Your task to perform on an android device: manage bookmarks in the chrome app Image 0: 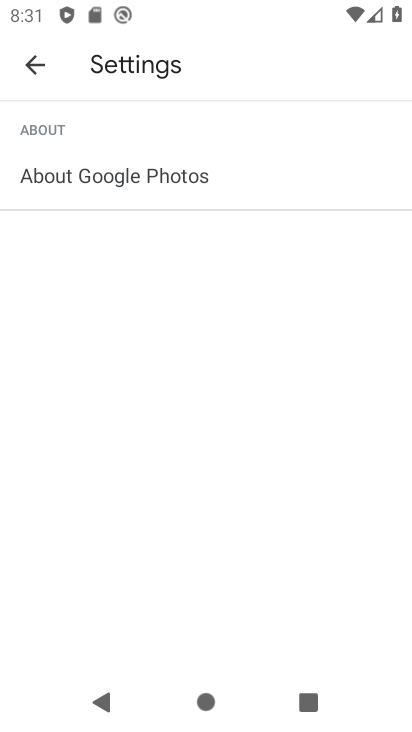
Step 0: press home button
Your task to perform on an android device: manage bookmarks in the chrome app Image 1: 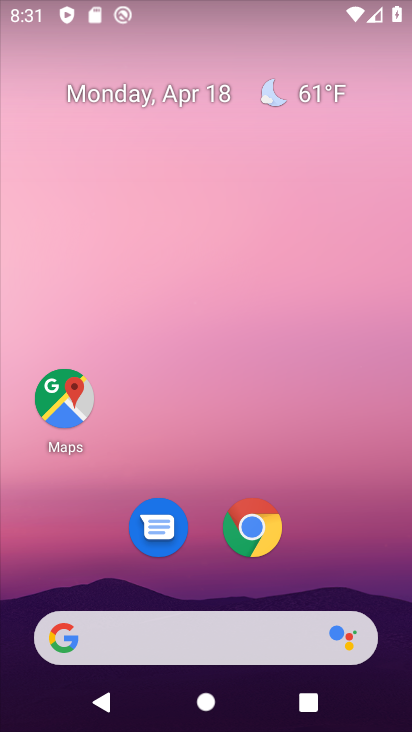
Step 1: click (258, 537)
Your task to perform on an android device: manage bookmarks in the chrome app Image 2: 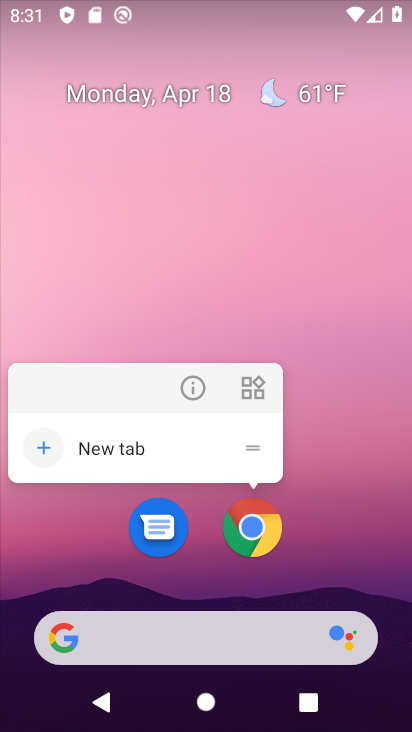
Step 2: click (255, 526)
Your task to perform on an android device: manage bookmarks in the chrome app Image 3: 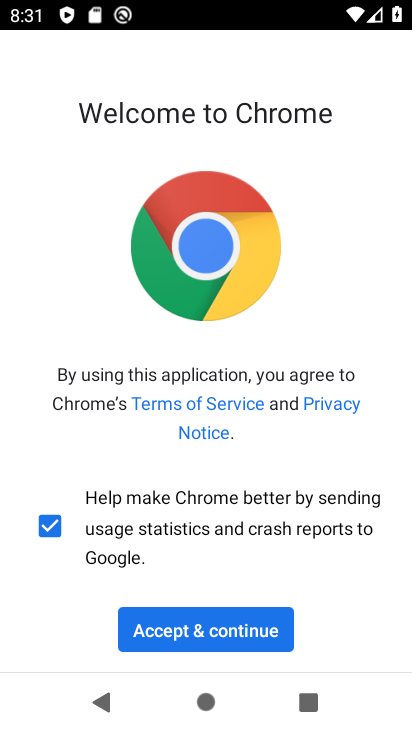
Step 3: click (204, 634)
Your task to perform on an android device: manage bookmarks in the chrome app Image 4: 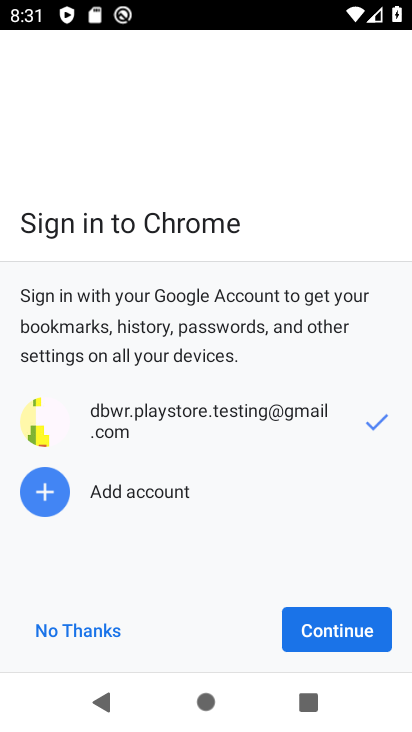
Step 4: click (61, 634)
Your task to perform on an android device: manage bookmarks in the chrome app Image 5: 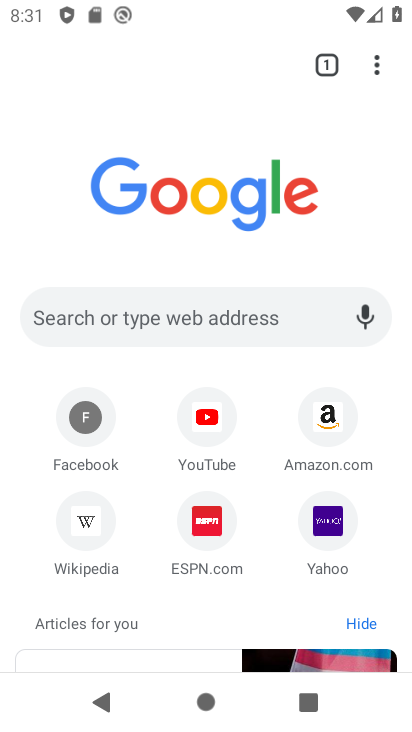
Step 5: click (378, 62)
Your task to perform on an android device: manage bookmarks in the chrome app Image 6: 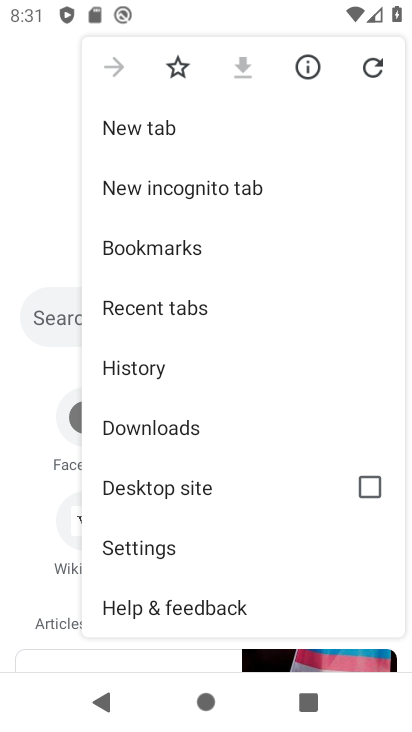
Step 6: click (146, 248)
Your task to perform on an android device: manage bookmarks in the chrome app Image 7: 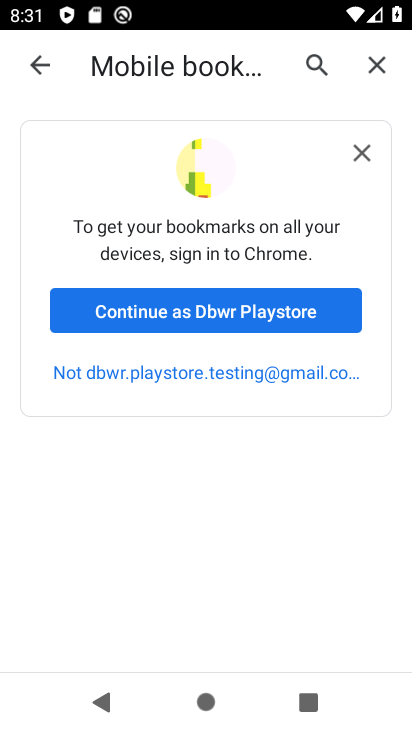
Step 7: click (149, 313)
Your task to perform on an android device: manage bookmarks in the chrome app Image 8: 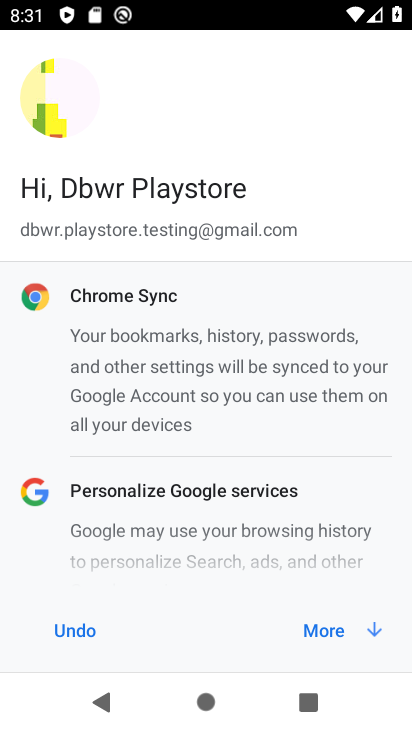
Step 8: click (329, 626)
Your task to perform on an android device: manage bookmarks in the chrome app Image 9: 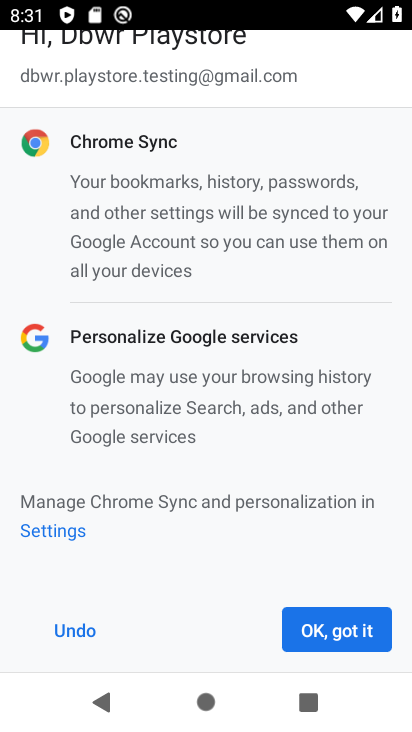
Step 9: click (345, 634)
Your task to perform on an android device: manage bookmarks in the chrome app Image 10: 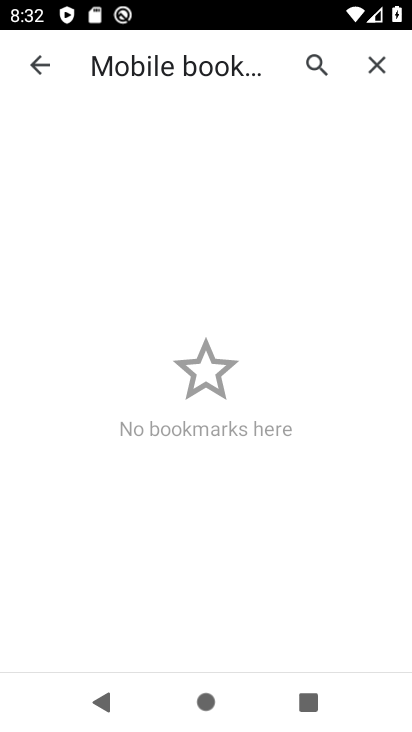
Step 10: drag from (230, 230) to (236, 497)
Your task to perform on an android device: manage bookmarks in the chrome app Image 11: 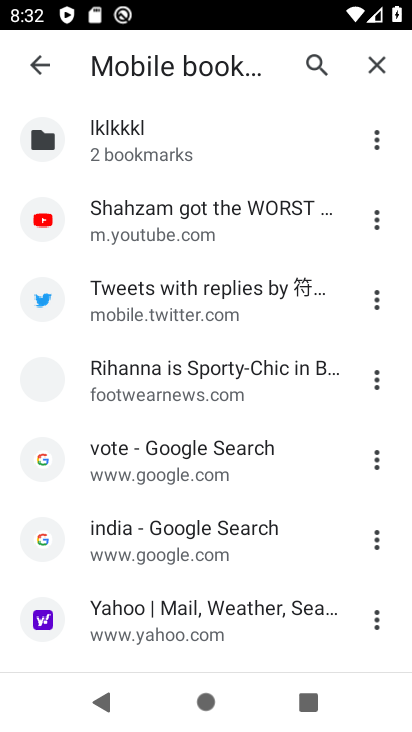
Step 11: click (373, 377)
Your task to perform on an android device: manage bookmarks in the chrome app Image 12: 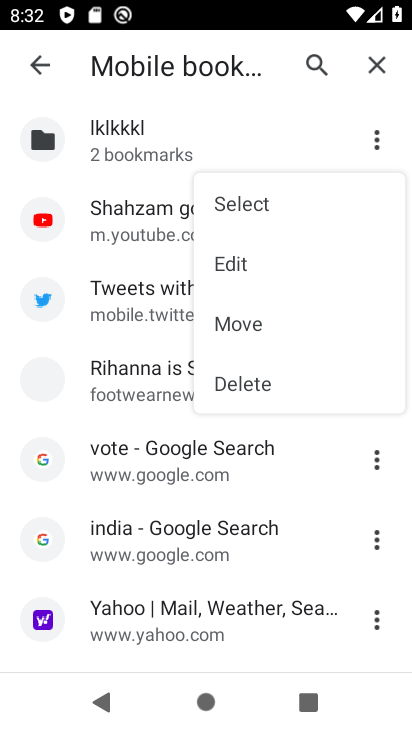
Step 12: click (240, 383)
Your task to perform on an android device: manage bookmarks in the chrome app Image 13: 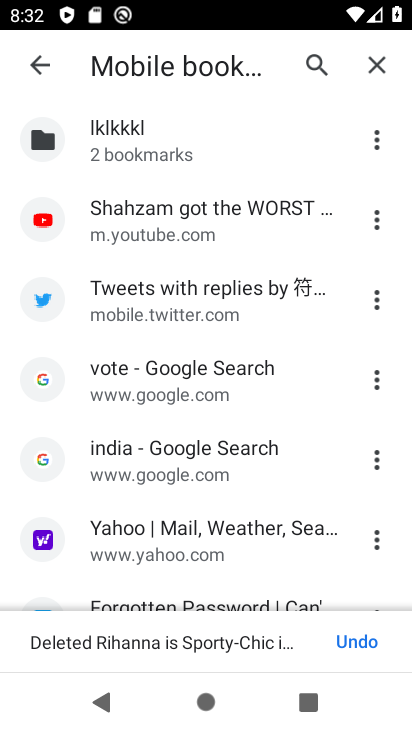
Step 13: task complete